Your task to perform on an android device: Search for pizza restaurants on Maps Image 0: 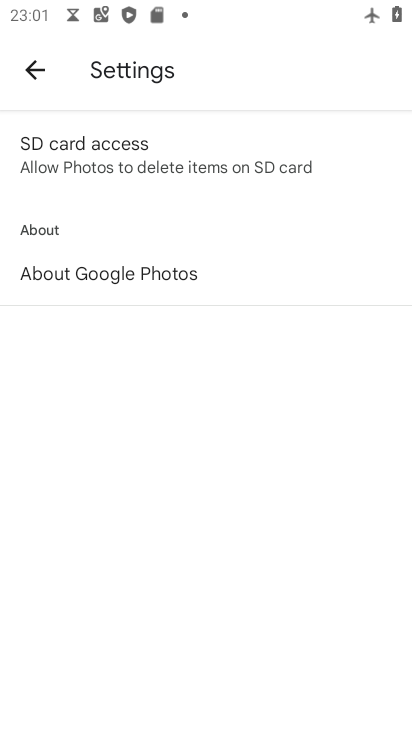
Step 0: press back button
Your task to perform on an android device: Search for pizza restaurants on Maps Image 1: 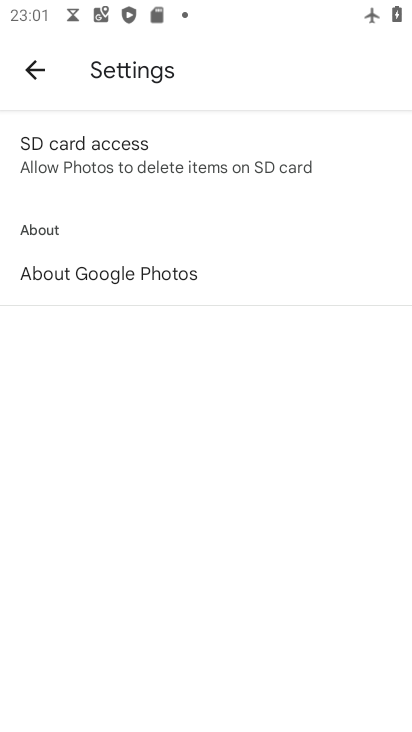
Step 1: press back button
Your task to perform on an android device: Search for pizza restaurants on Maps Image 2: 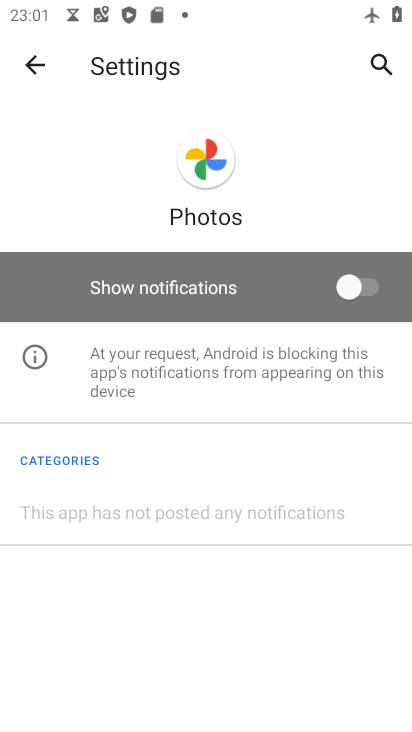
Step 2: press back button
Your task to perform on an android device: Search for pizza restaurants on Maps Image 3: 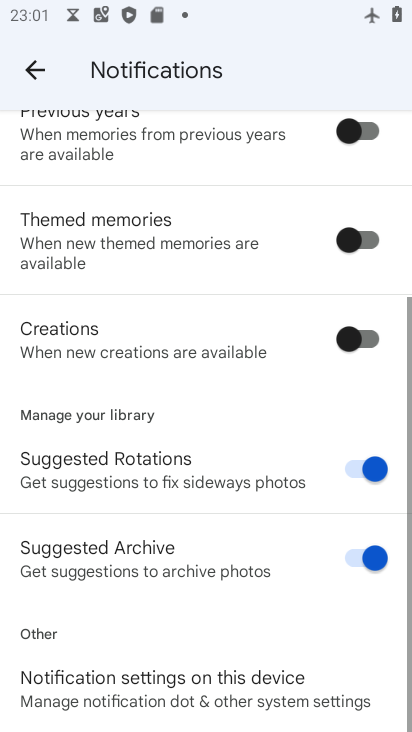
Step 3: press home button
Your task to perform on an android device: Search for pizza restaurants on Maps Image 4: 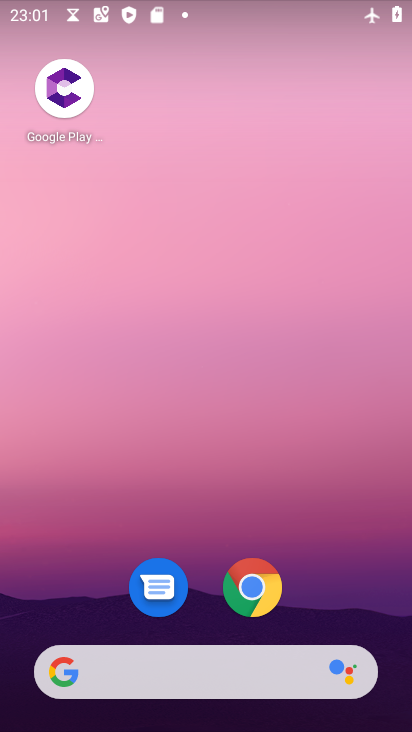
Step 4: drag from (328, 611) to (257, 32)
Your task to perform on an android device: Search for pizza restaurants on Maps Image 5: 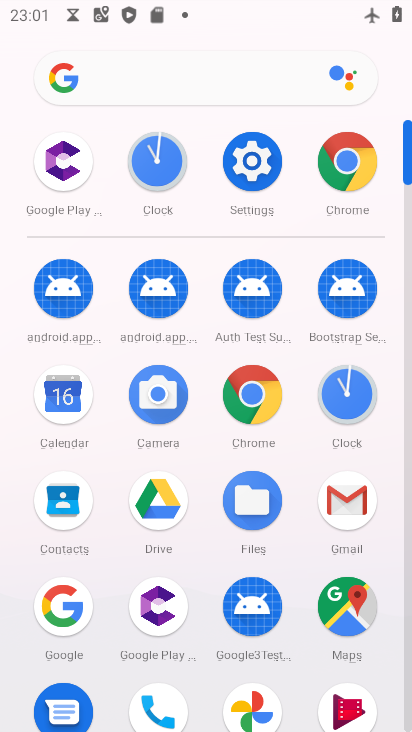
Step 5: drag from (24, 543) to (25, 200)
Your task to perform on an android device: Search for pizza restaurants on Maps Image 6: 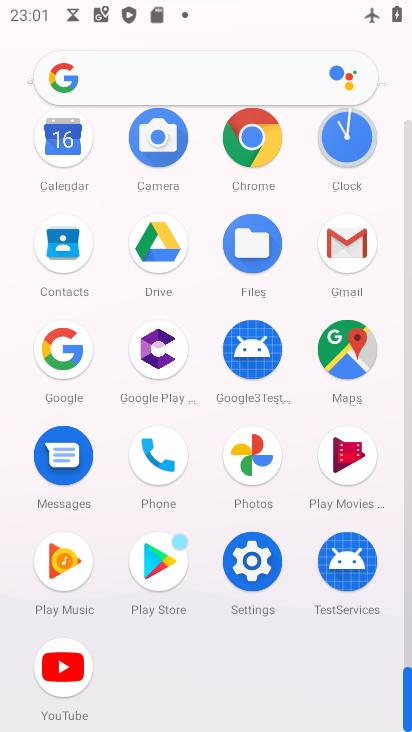
Step 6: click (346, 349)
Your task to perform on an android device: Search for pizza restaurants on Maps Image 7: 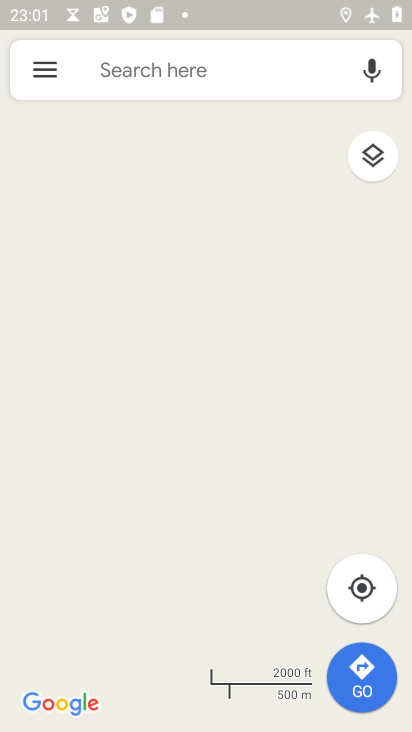
Step 7: click (209, 74)
Your task to perform on an android device: Search for pizza restaurants on Maps Image 8: 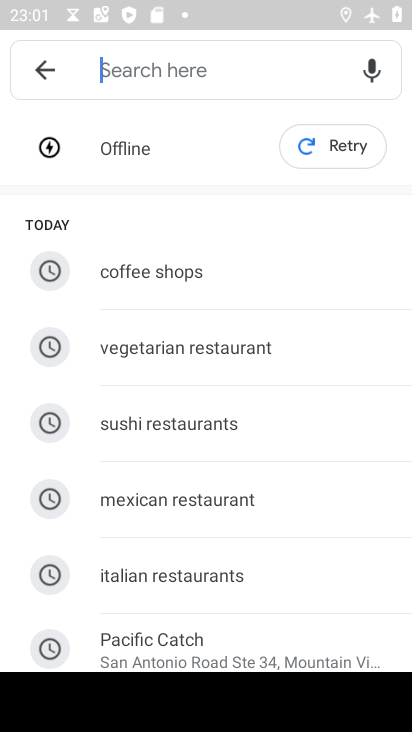
Step 8: drag from (254, 574) to (229, 239)
Your task to perform on an android device: Search for pizza restaurants on Maps Image 9: 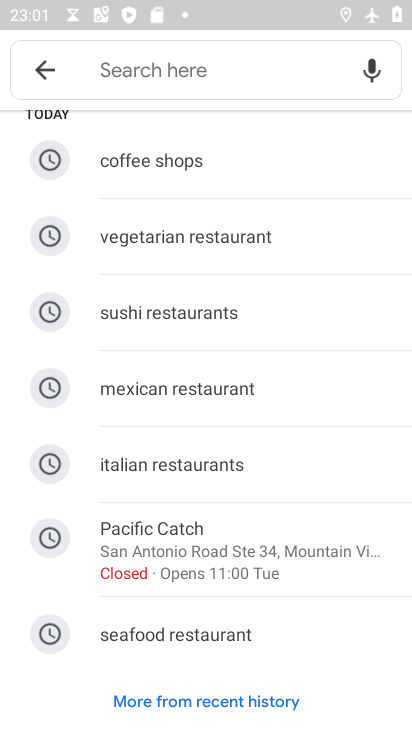
Step 9: drag from (245, 254) to (247, 559)
Your task to perform on an android device: Search for pizza restaurants on Maps Image 10: 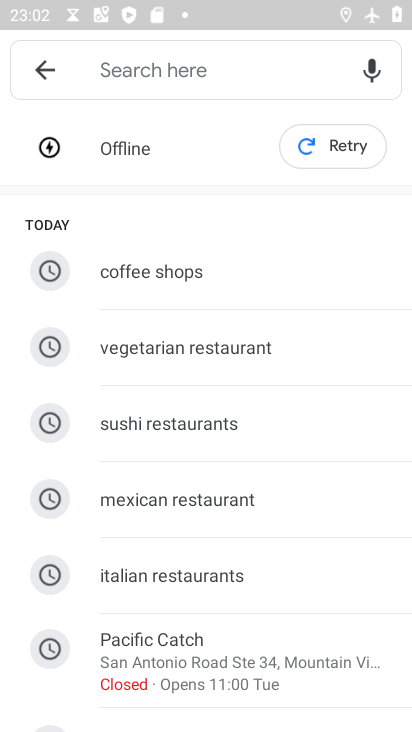
Step 10: click (240, 78)
Your task to perform on an android device: Search for pizza restaurants on Maps Image 11: 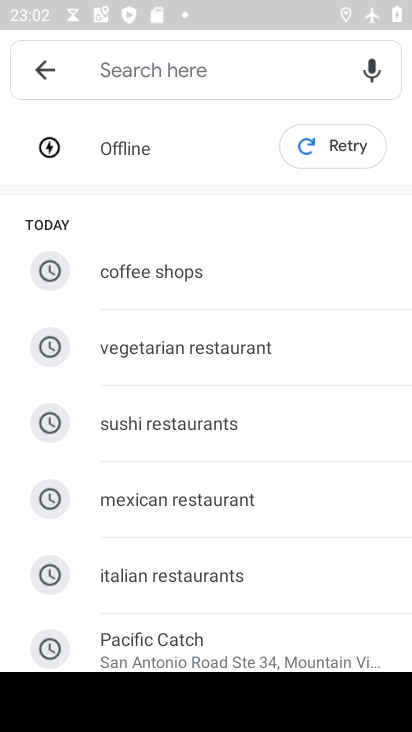
Step 11: type "pizza restaurants"
Your task to perform on an android device: Search for pizza restaurants on Maps Image 12: 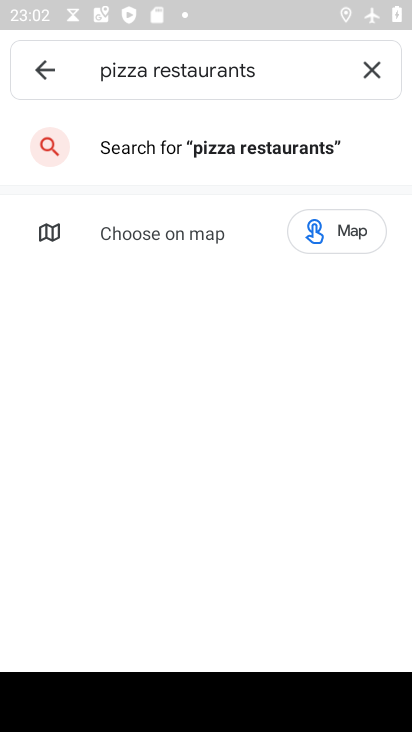
Step 12: click (196, 138)
Your task to perform on an android device: Search for pizza restaurants on Maps Image 13: 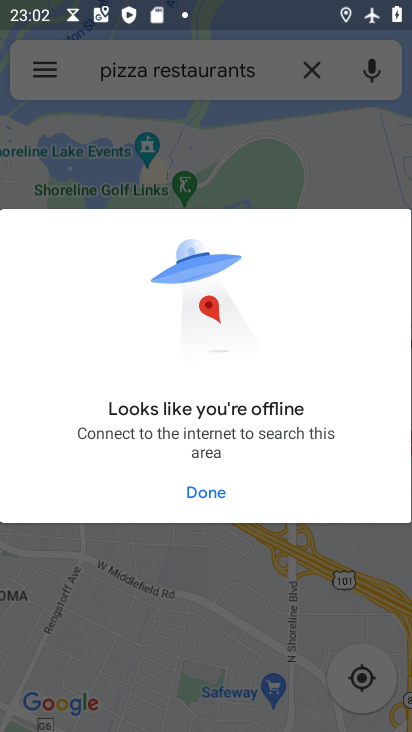
Step 13: task complete